Your task to perform on an android device: What's the weather? Image 0: 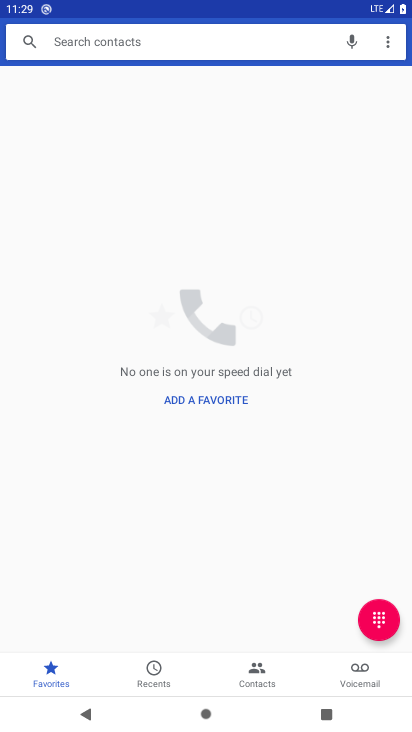
Step 0: drag from (216, 409) to (170, 102)
Your task to perform on an android device: What's the weather? Image 1: 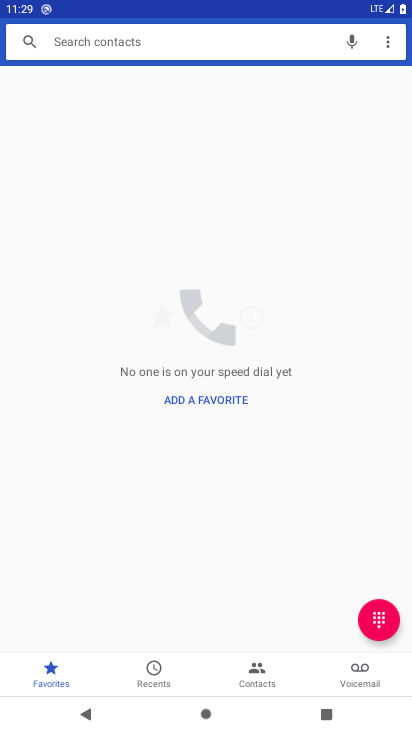
Step 1: press home button
Your task to perform on an android device: What's the weather? Image 2: 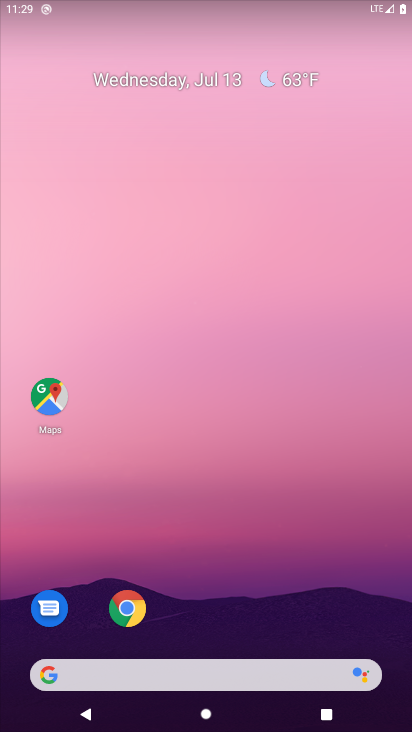
Step 2: click (123, 625)
Your task to perform on an android device: What's the weather? Image 3: 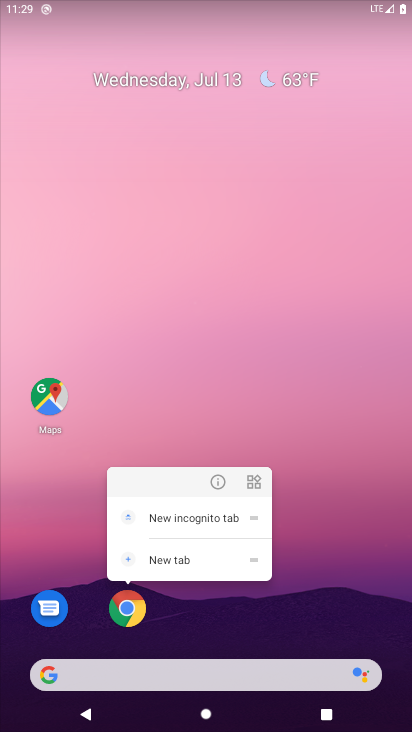
Step 3: click (121, 620)
Your task to perform on an android device: What's the weather? Image 4: 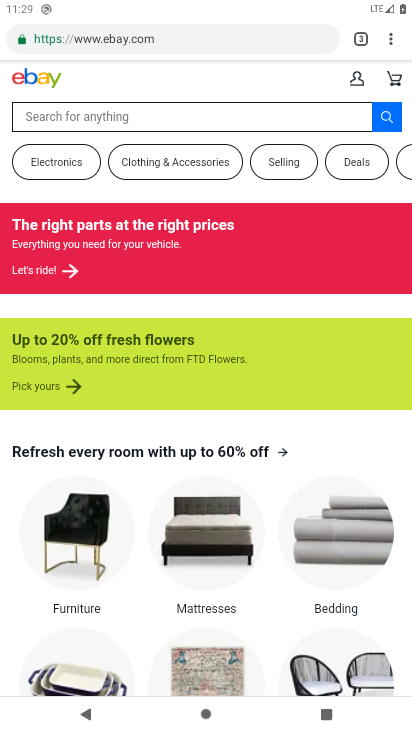
Step 4: click (181, 44)
Your task to perform on an android device: What's the weather? Image 5: 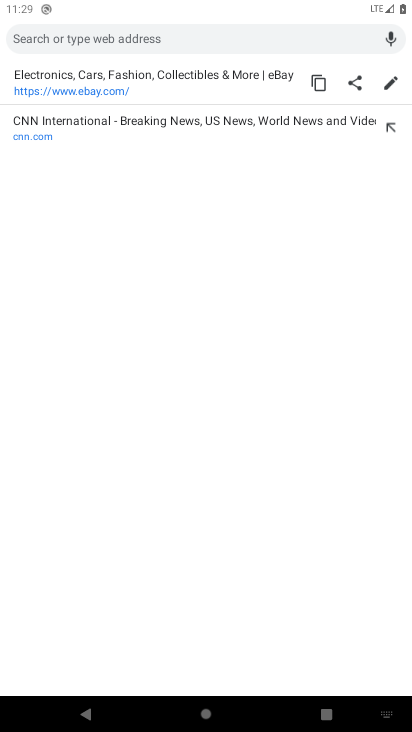
Step 5: type "What's the weather?"
Your task to perform on an android device: What's the weather? Image 6: 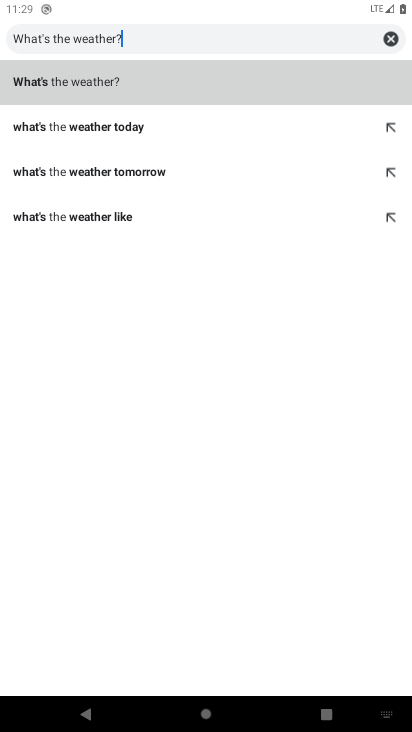
Step 6: type ""
Your task to perform on an android device: What's the weather? Image 7: 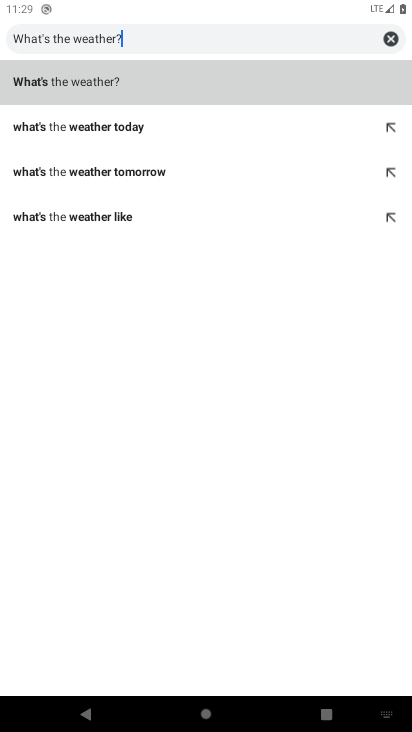
Step 7: click (118, 76)
Your task to perform on an android device: What's the weather? Image 8: 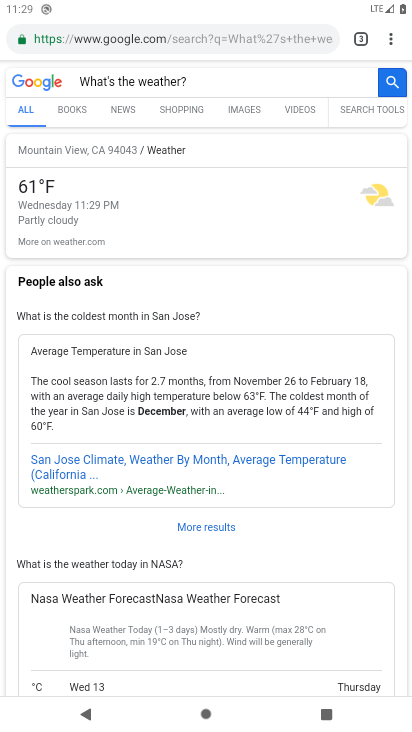
Step 8: task complete